Your task to perform on an android device: open app "Mercado Libre" Image 0: 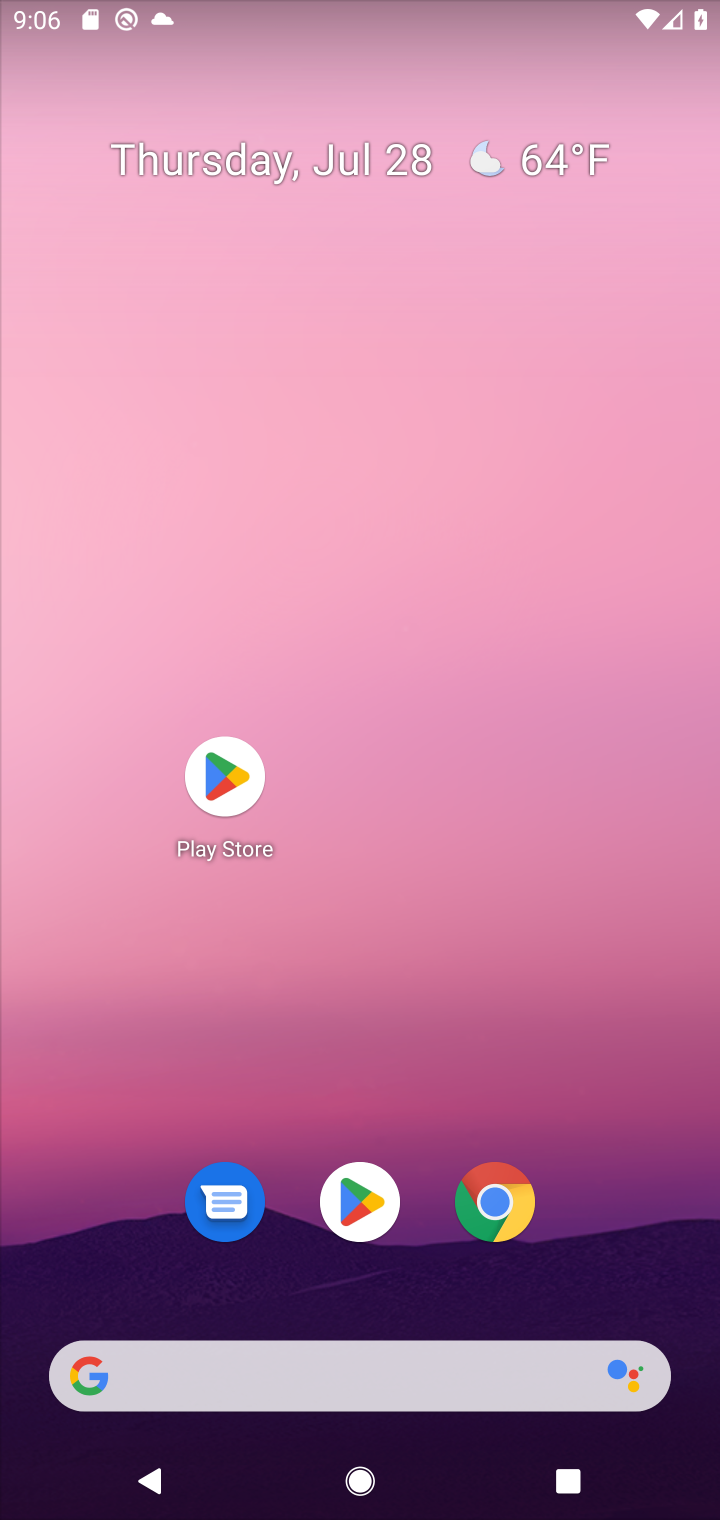
Step 0: click (371, 1205)
Your task to perform on an android device: open app "Mercado Libre" Image 1: 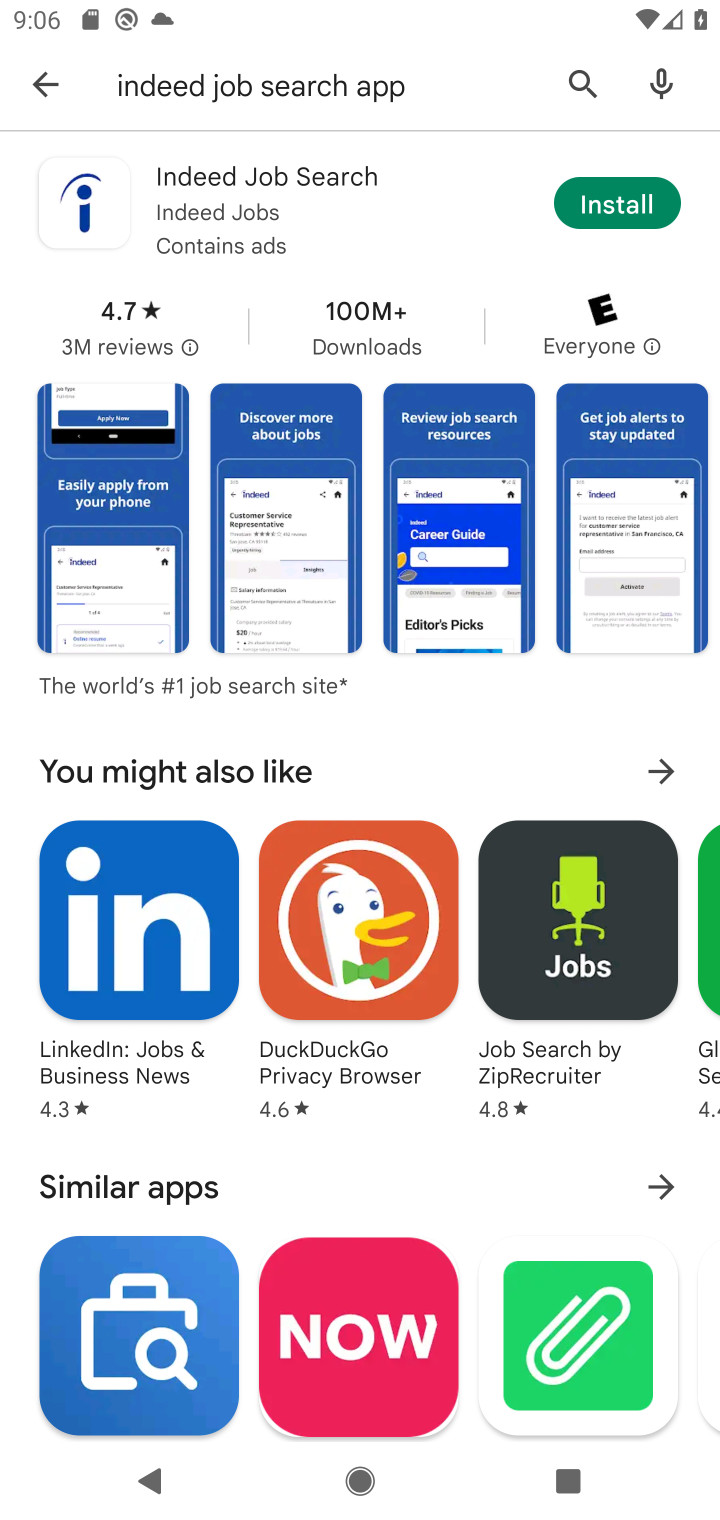
Step 1: click (576, 84)
Your task to perform on an android device: open app "Mercado Libre" Image 2: 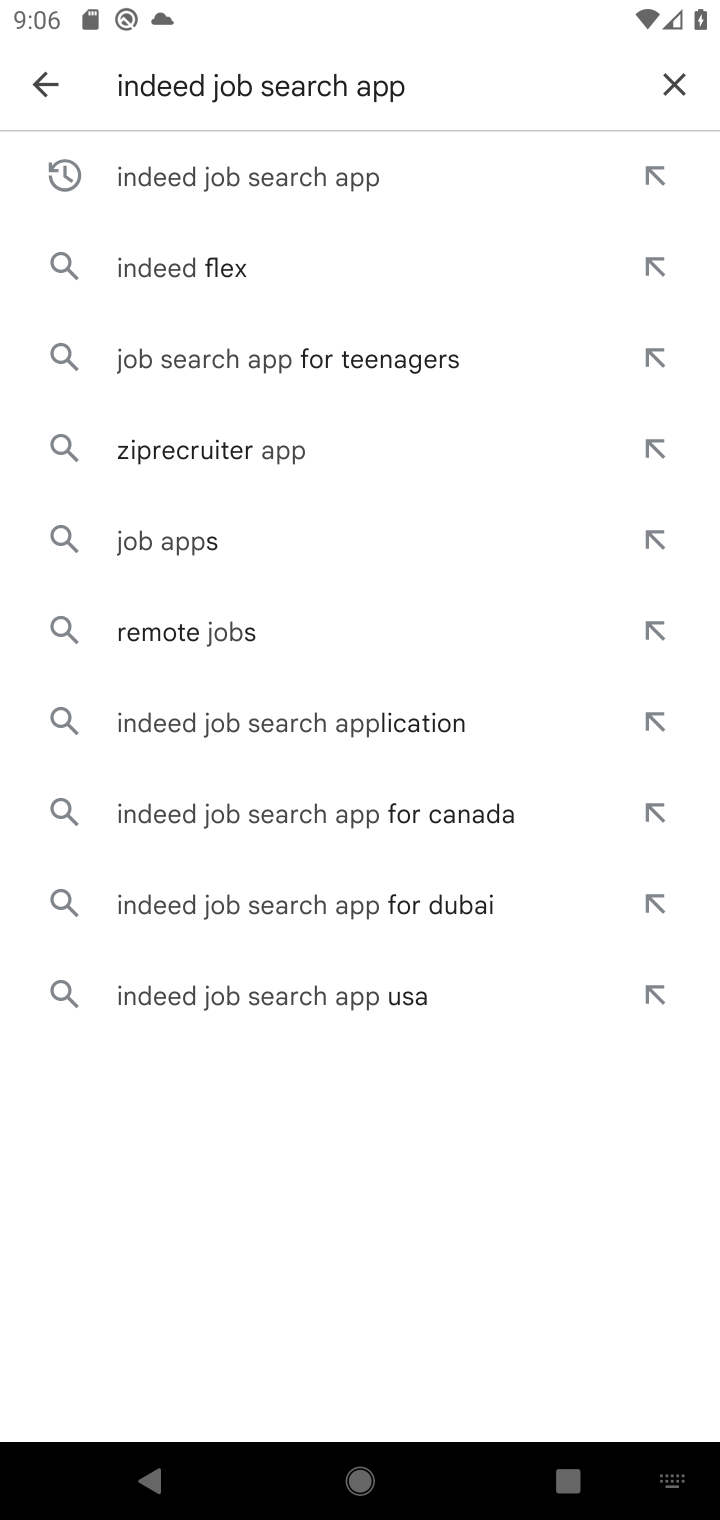
Step 2: click (672, 88)
Your task to perform on an android device: open app "Mercado Libre" Image 3: 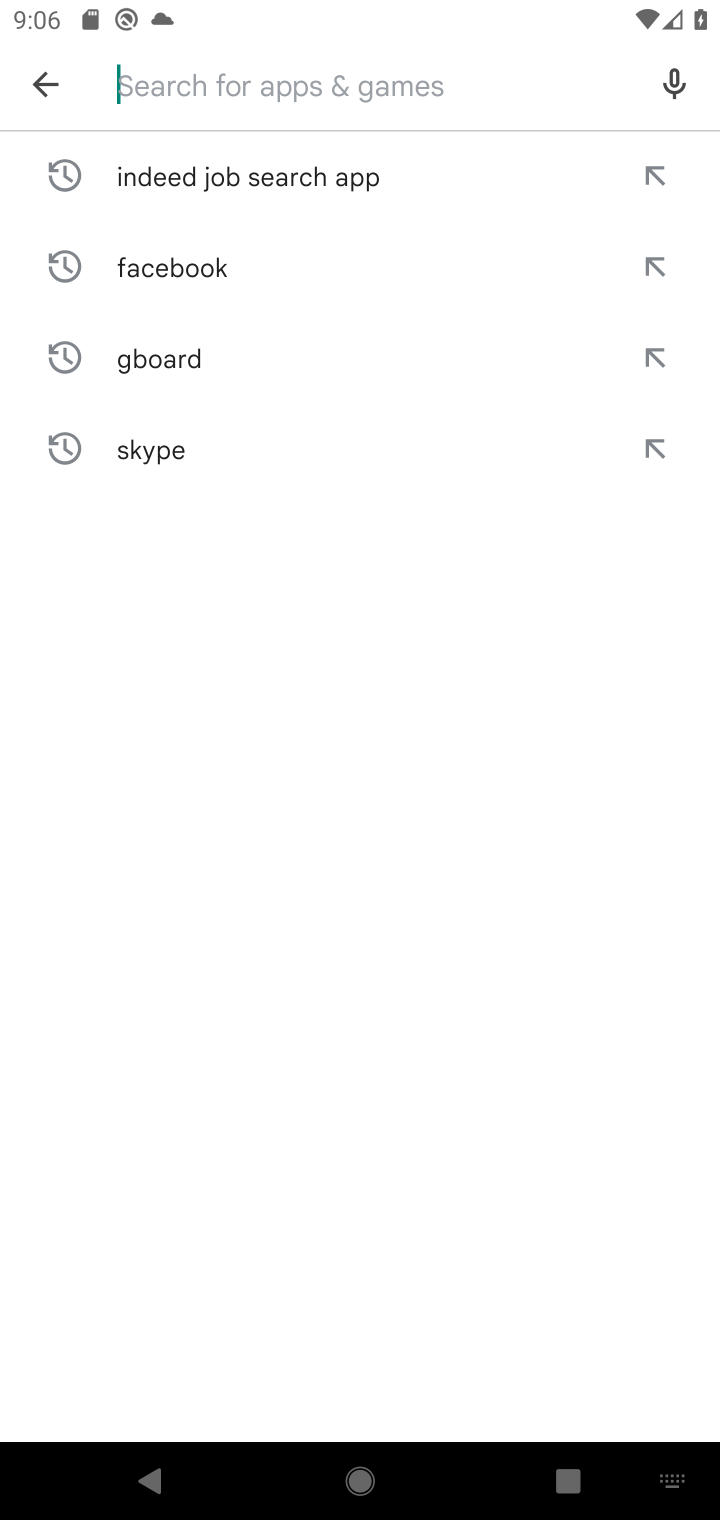
Step 3: click (289, 79)
Your task to perform on an android device: open app "Mercado Libre" Image 4: 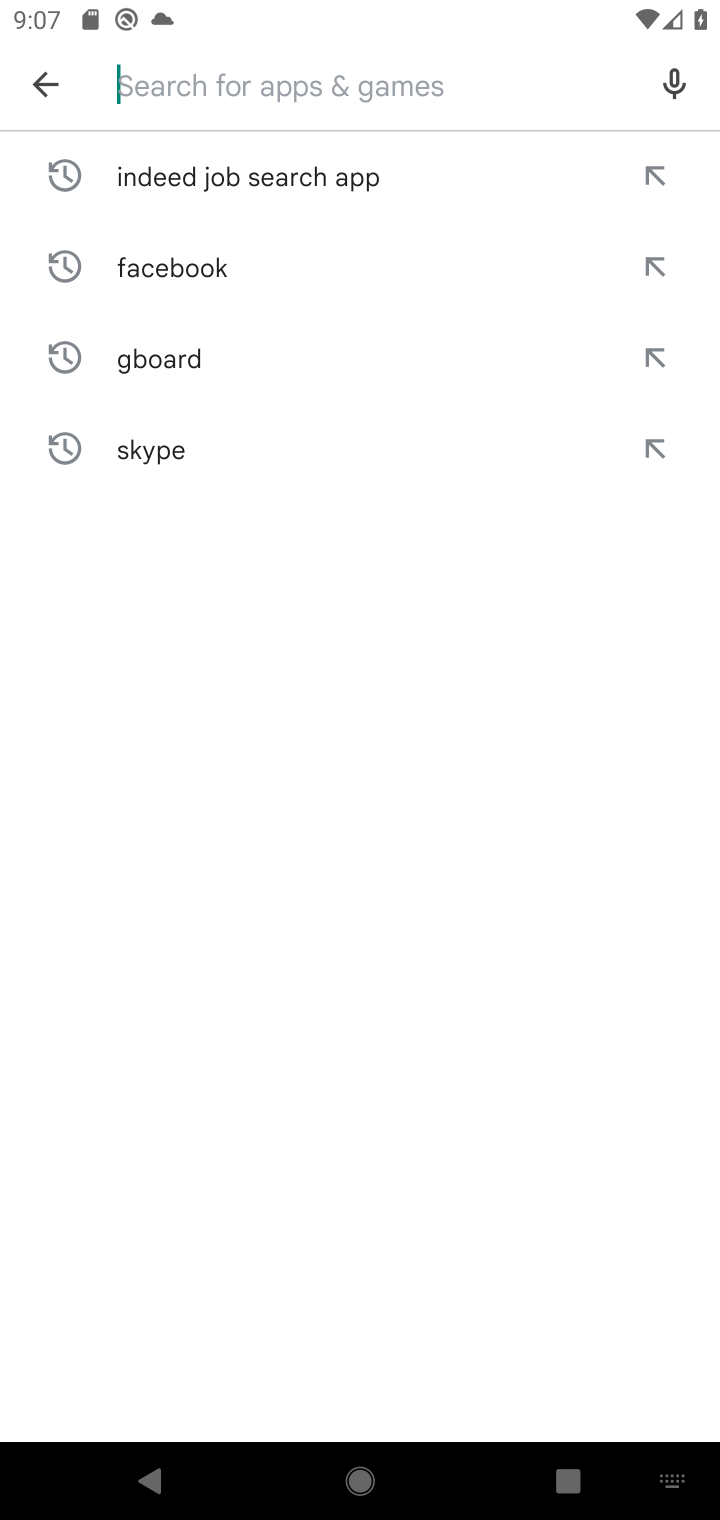
Step 4: type "Mercado Libre"
Your task to perform on an android device: open app "Mercado Libre" Image 5: 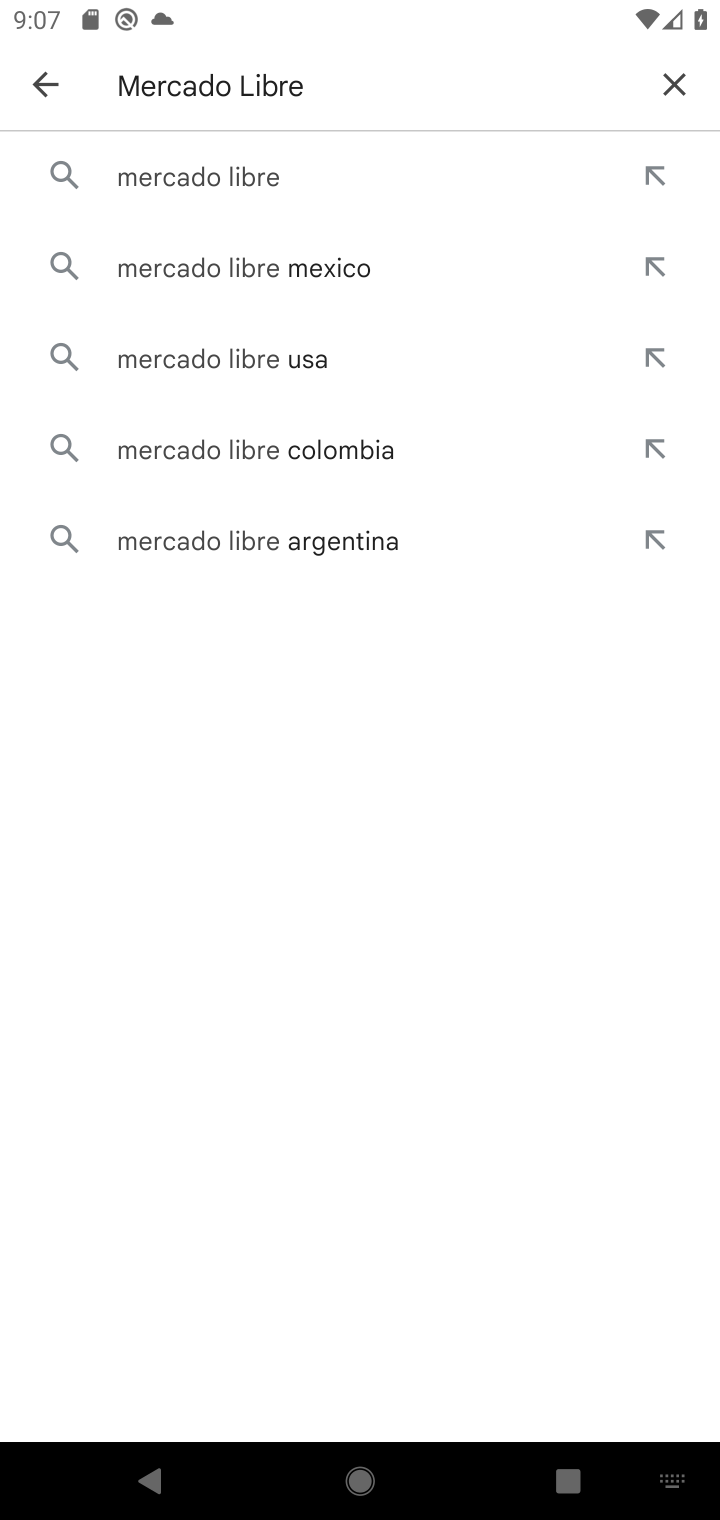
Step 5: click (250, 191)
Your task to perform on an android device: open app "Mercado Libre" Image 6: 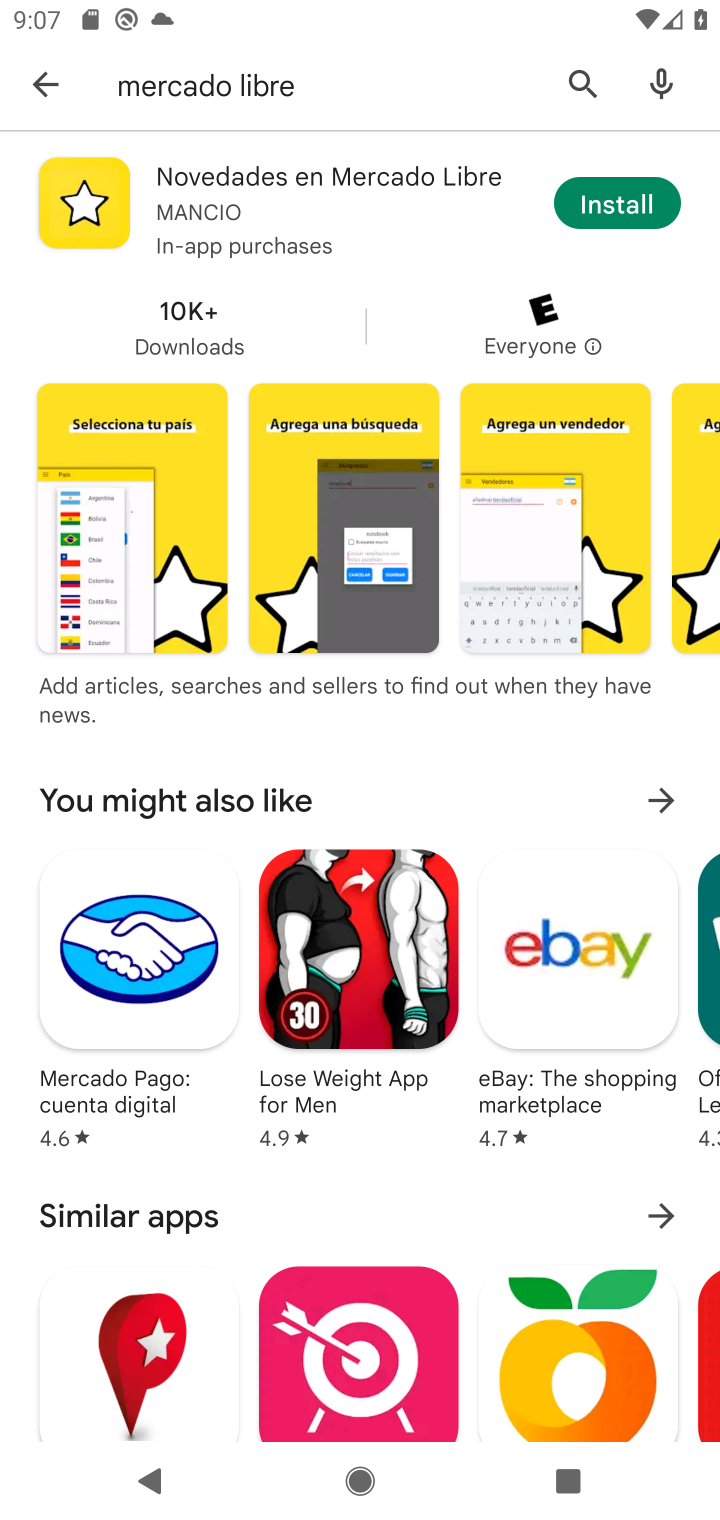
Step 6: task complete